Your task to perform on an android device: Search for "lg ultragear" on amazon, select the first entry, add it to the cart, then select checkout. Image 0: 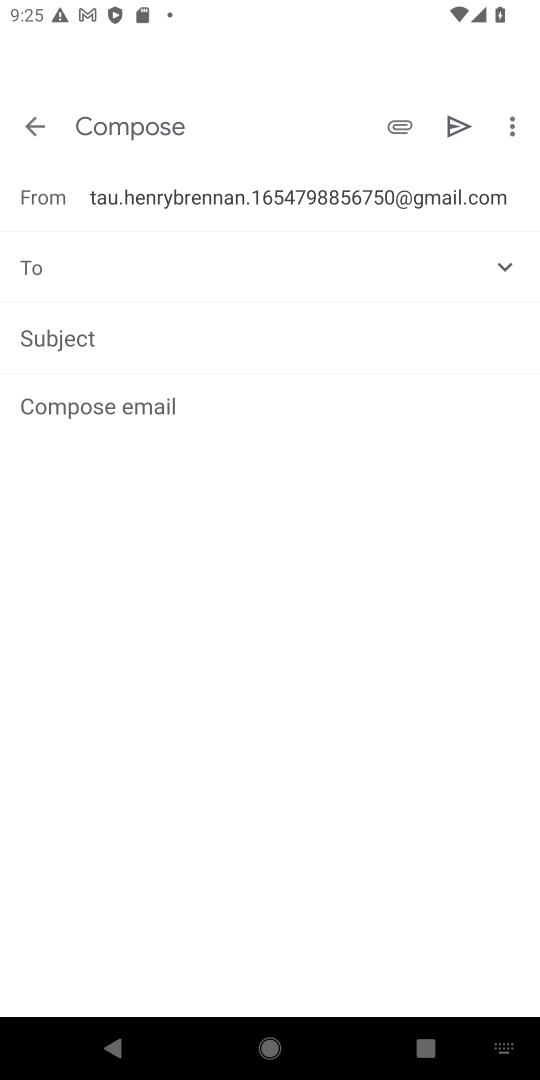
Step 0: press home button
Your task to perform on an android device: Search for "lg ultragear" on amazon, select the first entry, add it to the cart, then select checkout. Image 1: 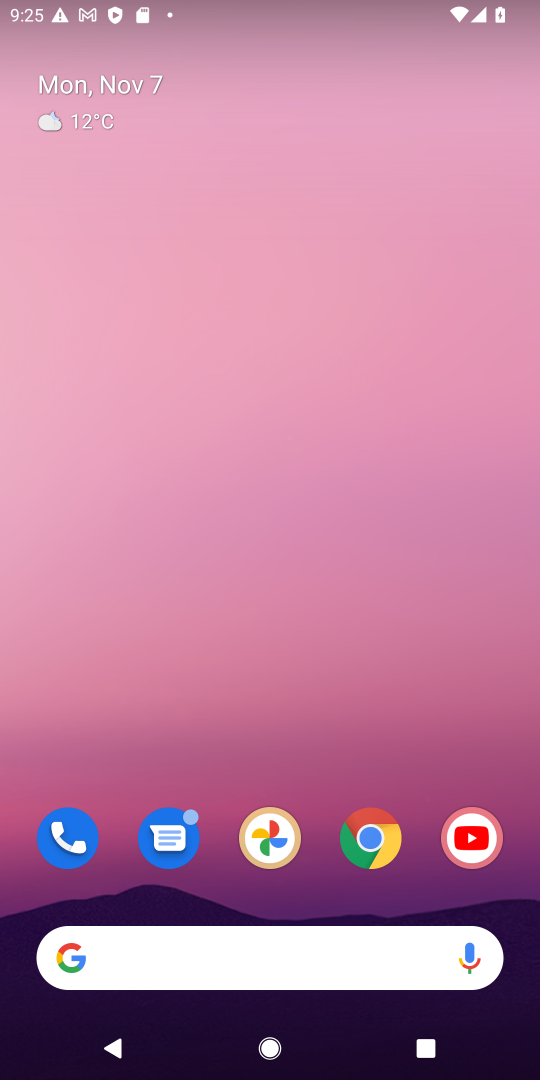
Step 1: click (371, 828)
Your task to perform on an android device: Search for "lg ultragear" on amazon, select the first entry, add it to the cart, then select checkout. Image 2: 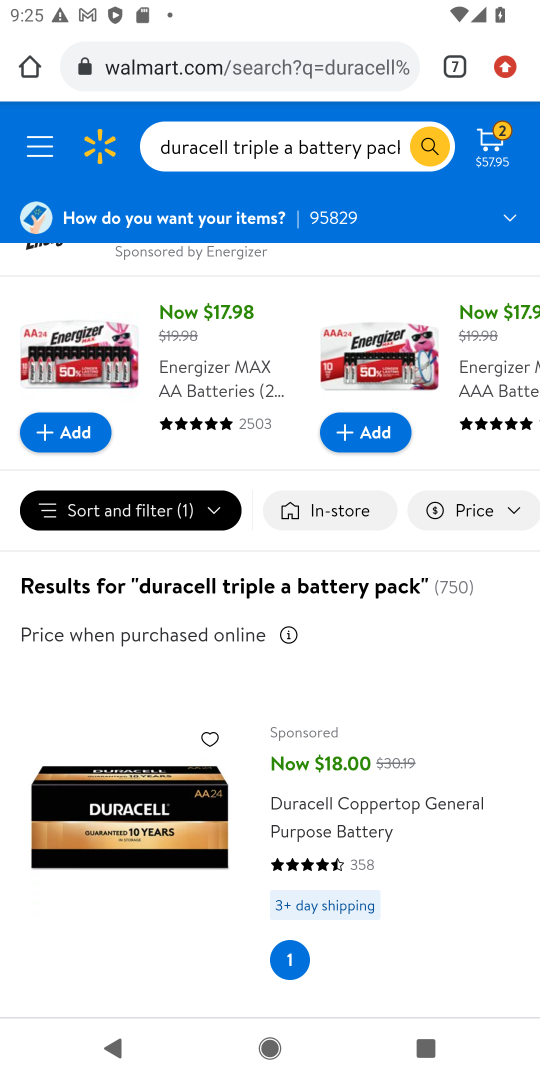
Step 2: click (458, 61)
Your task to perform on an android device: Search for "lg ultragear" on amazon, select the first entry, add it to the cart, then select checkout. Image 3: 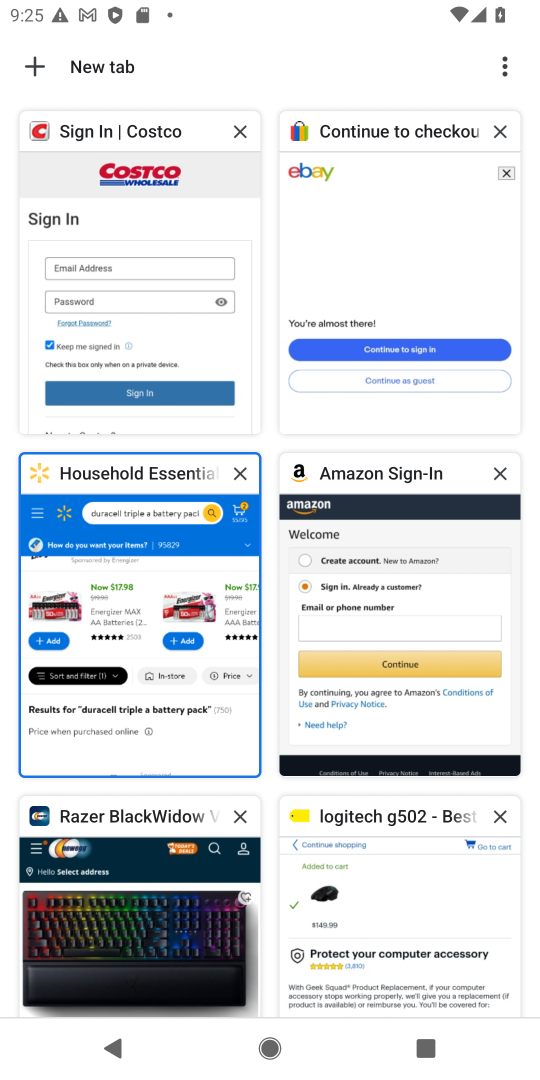
Step 3: click (422, 632)
Your task to perform on an android device: Search for "lg ultragear" on amazon, select the first entry, add it to the cart, then select checkout. Image 4: 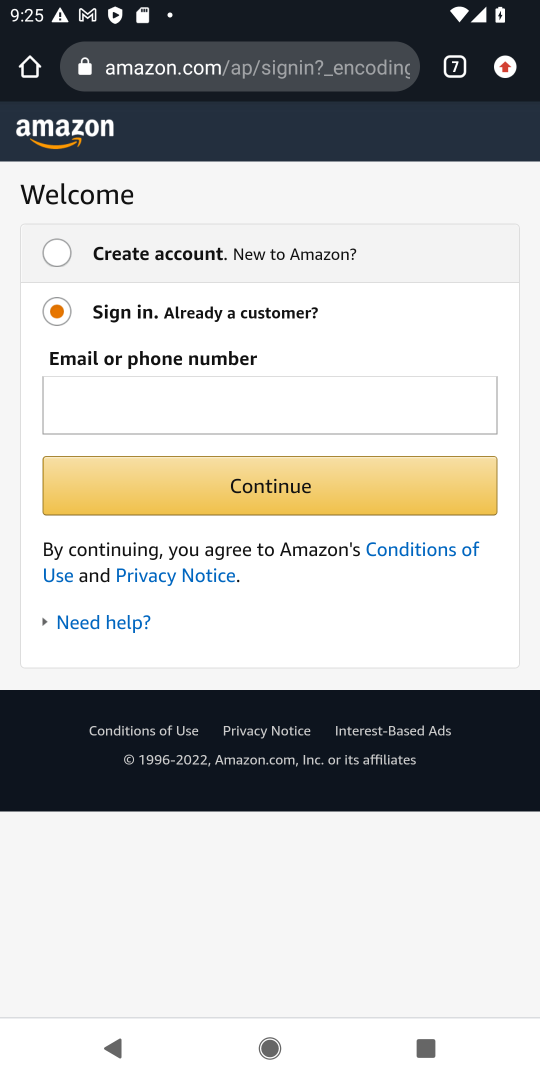
Step 4: press back button
Your task to perform on an android device: Search for "lg ultragear" on amazon, select the first entry, add it to the cart, then select checkout. Image 5: 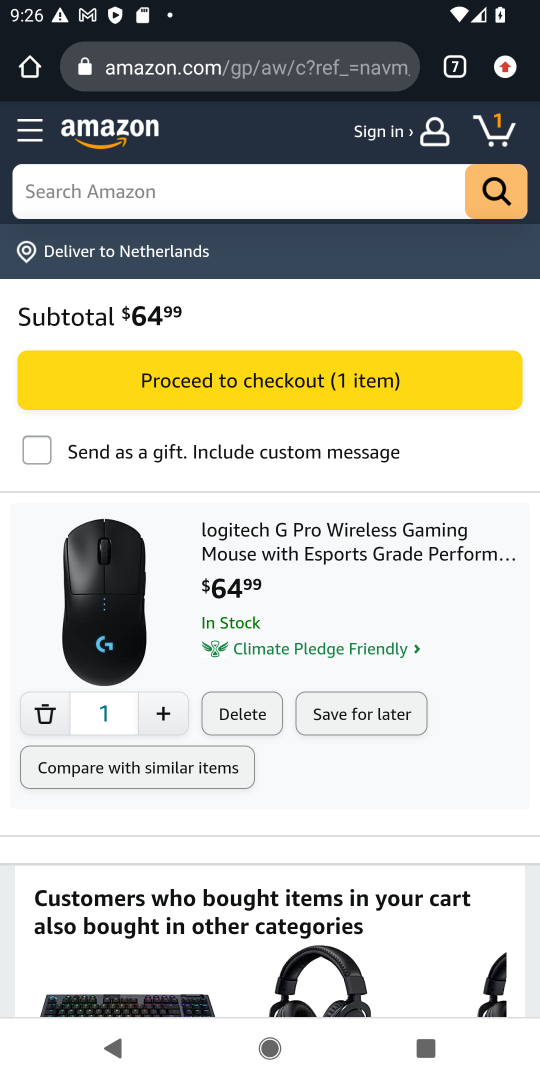
Step 5: click (112, 184)
Your task to perform on an android device: Search for "lg ultragear" on amazon, select the first entry, add it to the cart, then select checkout. Image 6: 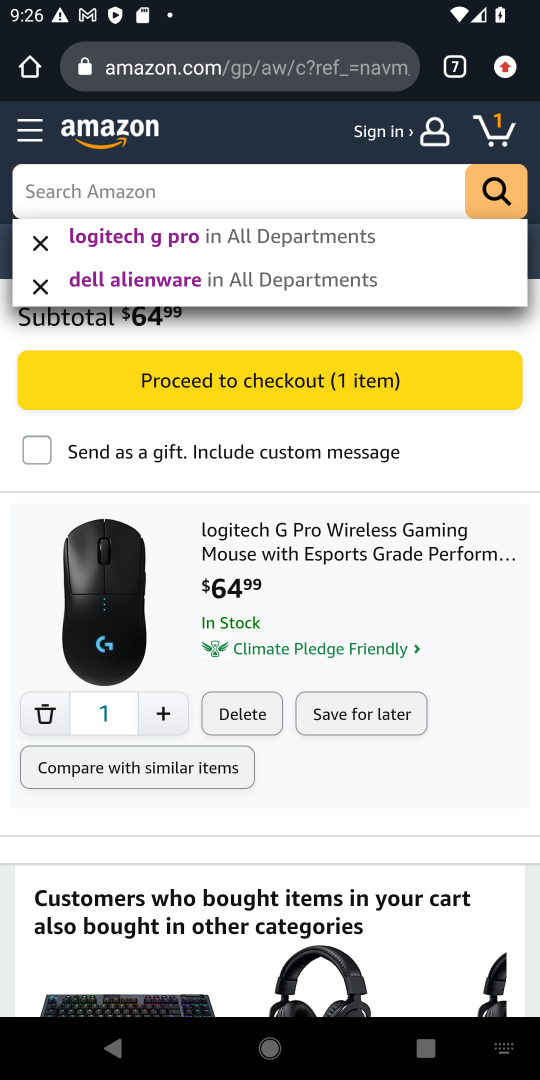
Step 6: type "lg ultragear"
Your task to perform on an android device: Search for "lg ultragear" on amazon, select the first entry, add it to the cart, then select checkout. Image 7: 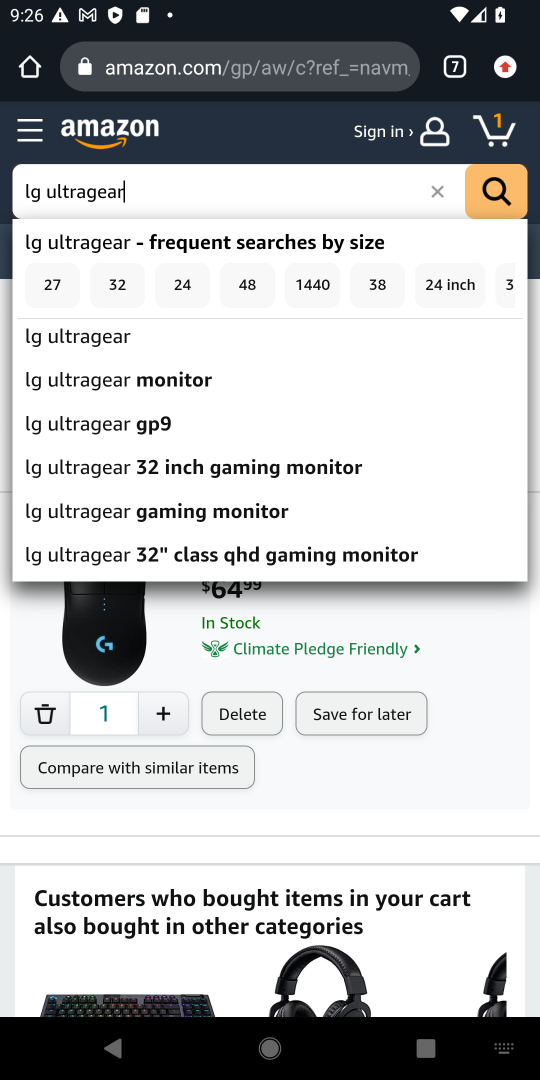
Step 7: click (486, 191)
Your task to perform on an android device: Search for "lg ultragear" on amazon, select the first entry, add it to the cart, then select checkout. Image 8: 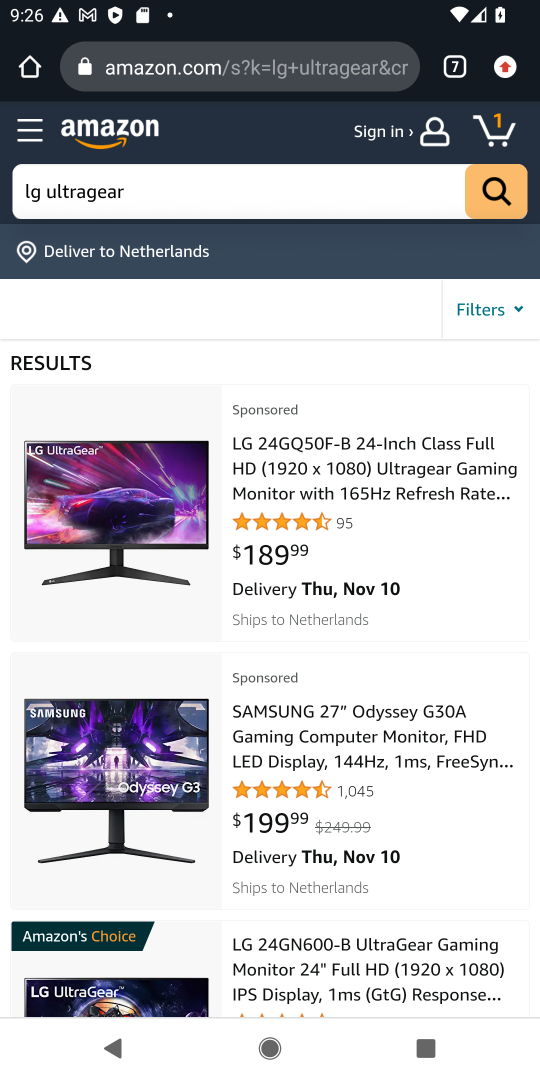
Step 8: click (301, 466)
Your task to perform on an android device: Search for "lg ultragear" on amazon, select the first entry, add it to the cart, then select checkout. Image 9: 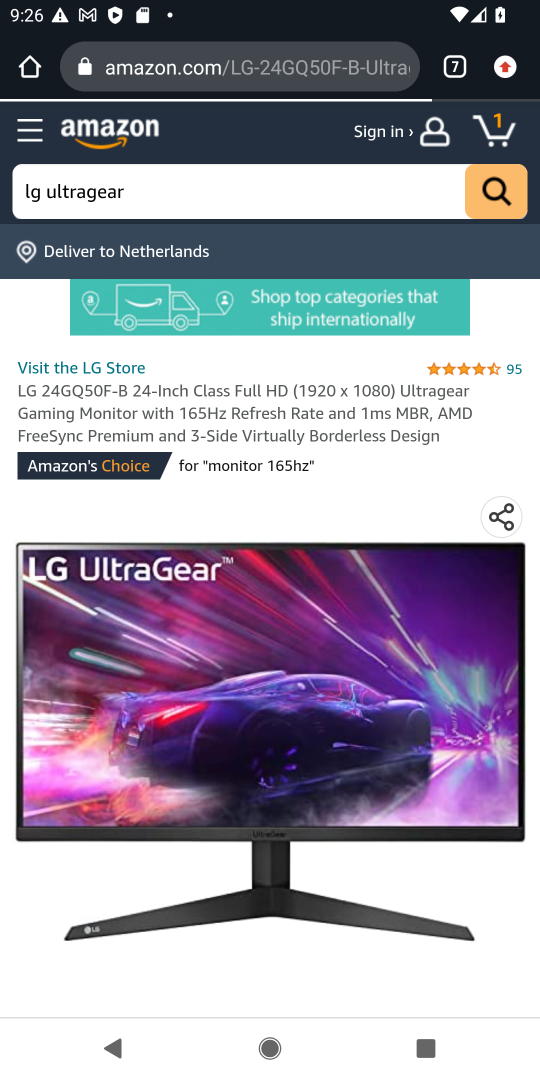
Step 9: drag from (404, 881) to (382, 244)
Your task to perform on an android device: Search for "lg ultragear" on amazon, select the first entry, add it to the cart, then select checkout. Image 10: 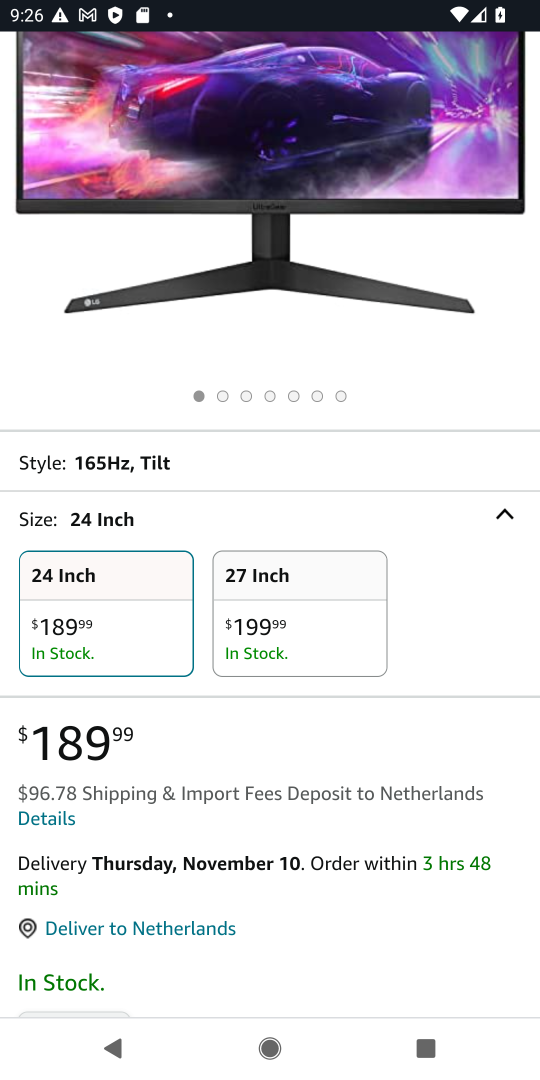
Step 10: drag from (318, 829) to (404, 227)
Your task to perform on an android device: Search for "lg ultragear" on amazon, select the first entry, add it to the cart, then select checkout. Image 11: 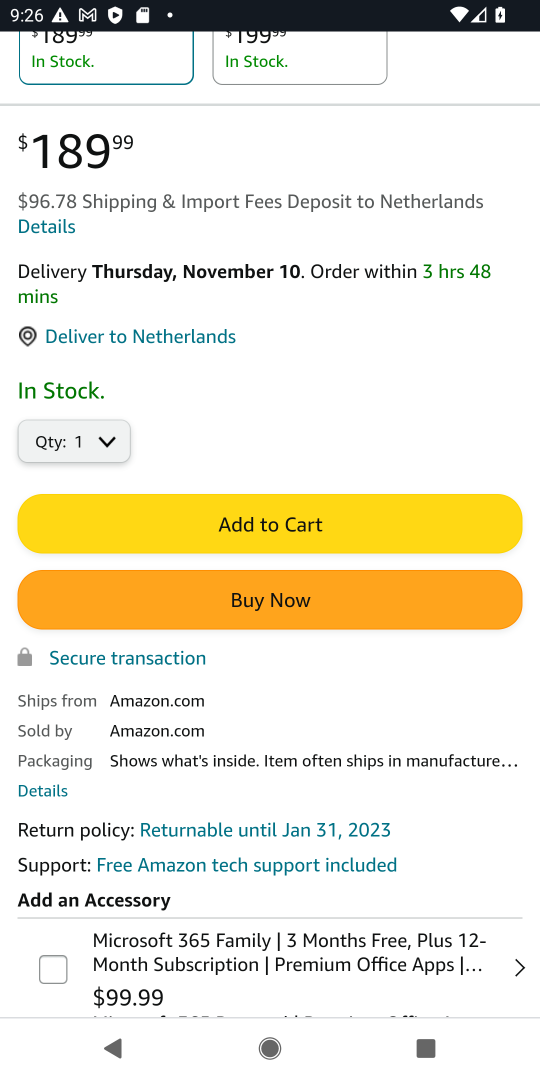
Step 11: click (283, 528)
Your task to perform on an android device: Search for "lg ultragear" on amazon, select the first entry, add it to the cart, then select checkout. Image 12: 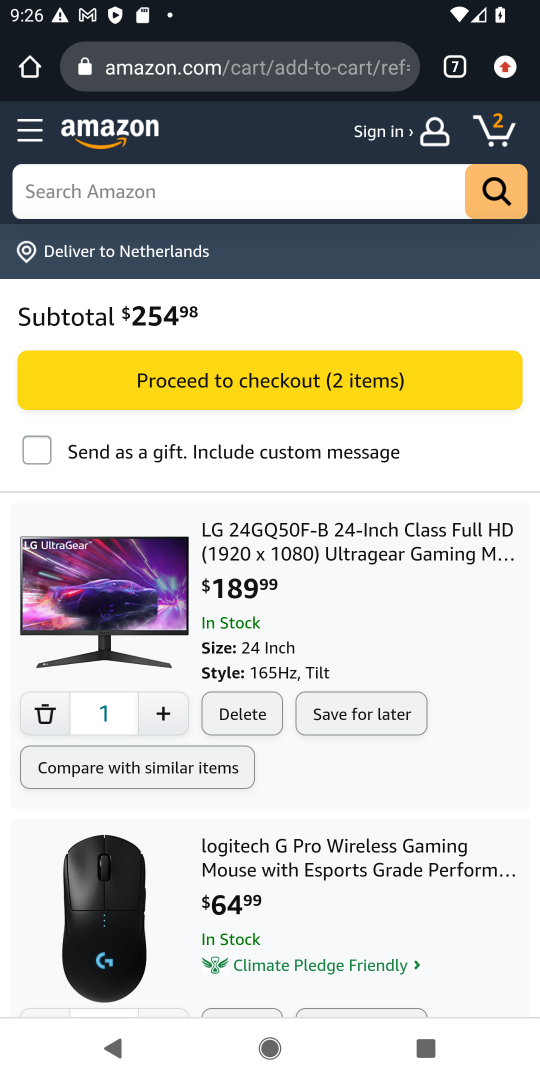
Step 12: click (347, 376)
Your task to perform on an android device: Search for "lg ultragear" on amazon, select the first entry, add it to the cart, then select checkout. Image 13: 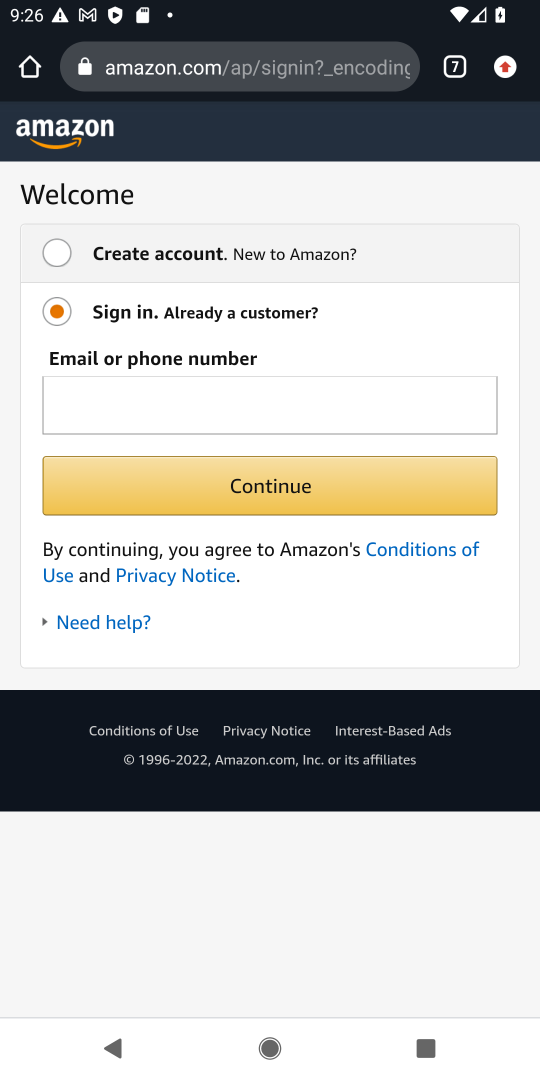
Step 13: task complete